Your task to perform on an android device: check android version Image 0: 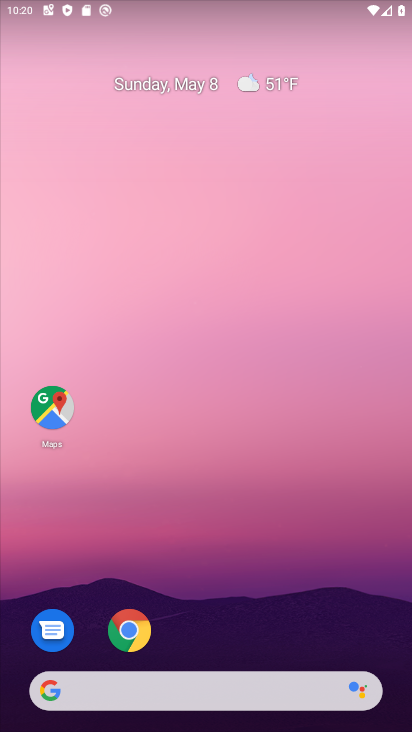
Step 0: drag from (343, 632) to (125, 27)
Your task to perform on an android device: check android version Image 1: 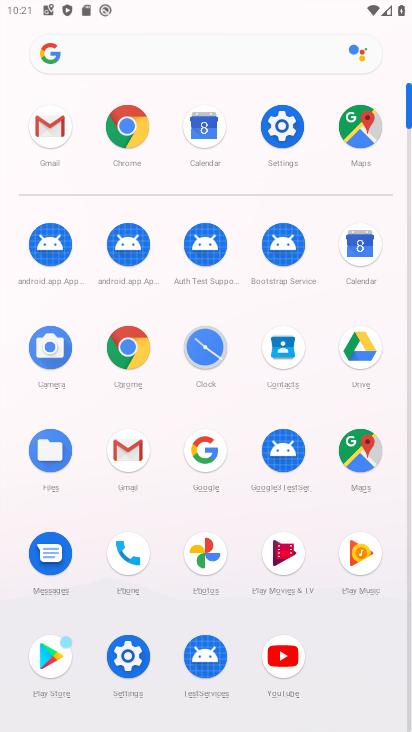
Step 1: click (276, 135)
Your task to perform on an android device: check android version Image 2: 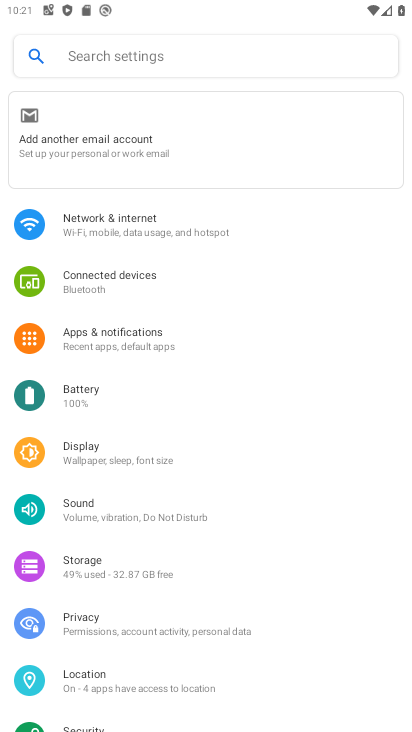
Step 2: drag from (159, 687) to (274, 64)
Your task to perform on an android device: check android version Image 3: 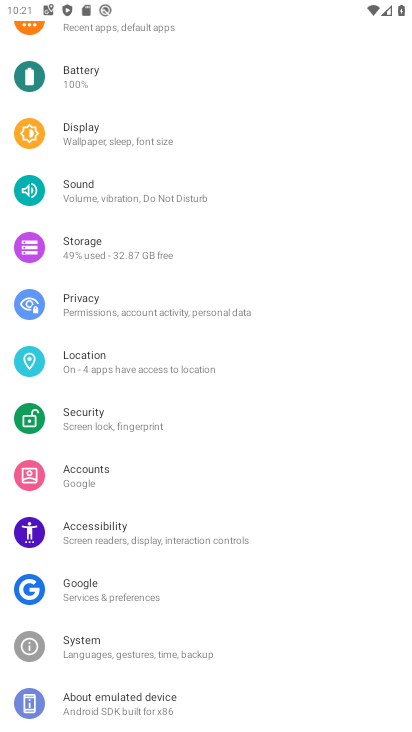
Step 3: click (164, 702)
Your task to perform on an android device: check android version Image 4: 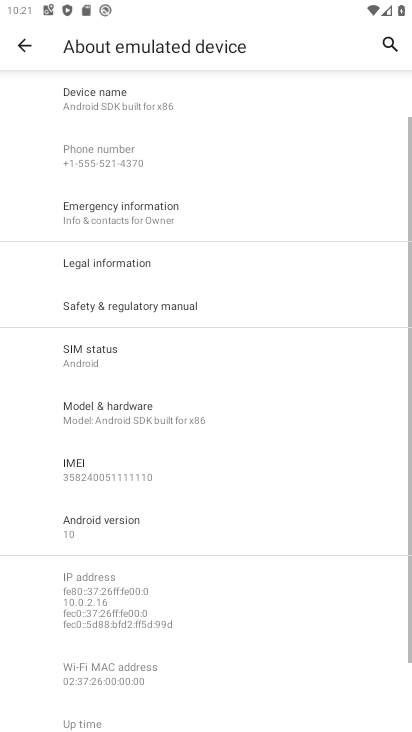
Step 4: click (103, 551)
Your task to perform on an android device: check android version Image 5: 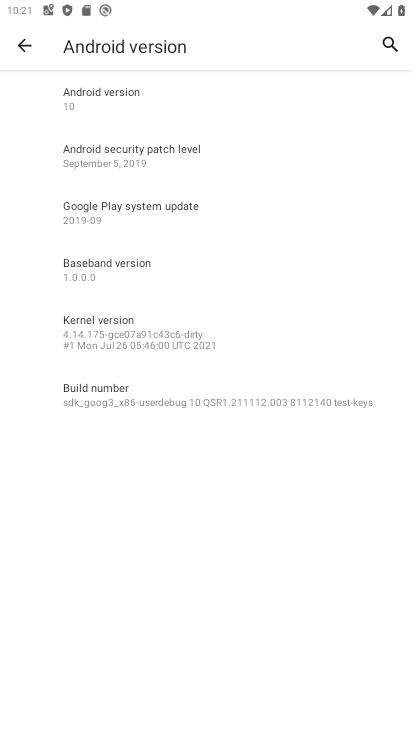
Step 5: task complete